Your task to perform on an android device: Go to Reddit.com Image 0: 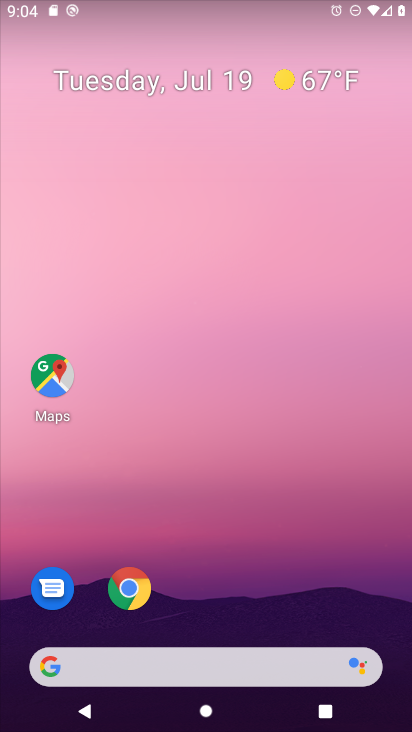
Step 0: drag from (329, 572) to (351, 77)
Your task to perform on an android device: Go to Reddit.com Image 1: 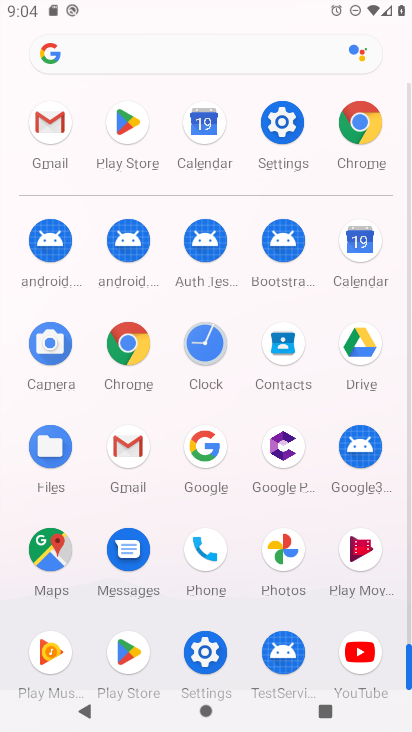
Step 1: click (368, 129)
Your task to perform on an android device: Go to Reddit.com Image 2: 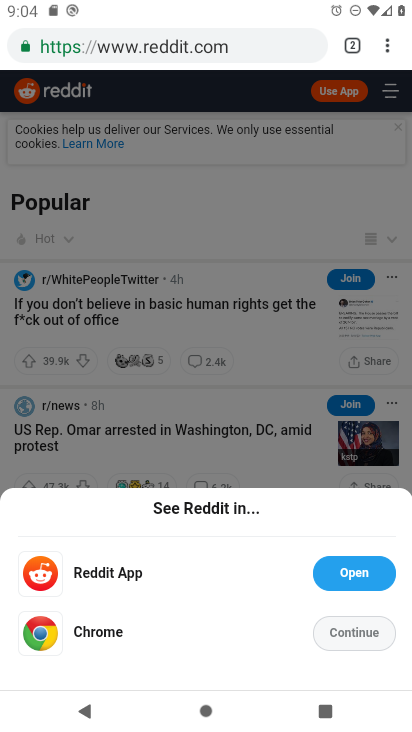
Step 2: click (264, 43)
Your task to perform on an android device: Go to Reddit.com Image 3: 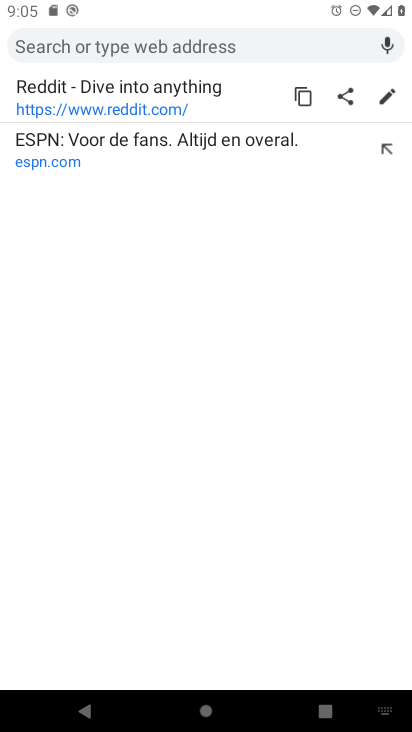
Step 3: type "reddit.com"
Your task to perform on an android device: Go to Reddit.com Image 4: 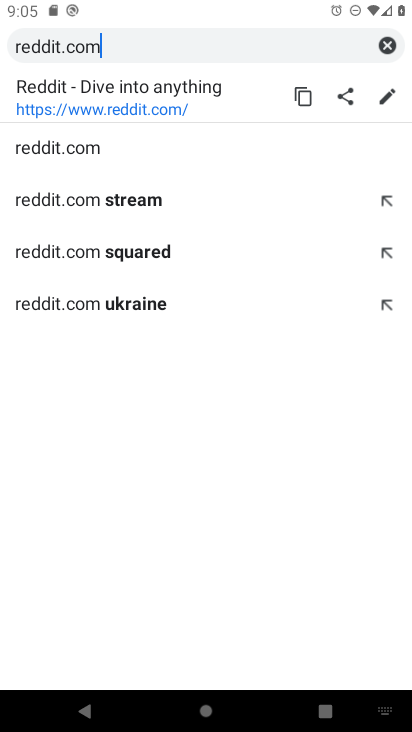
Step 4: click (269, 153)
Your task to perform on an android device: Go to Reddit.com Image 5: 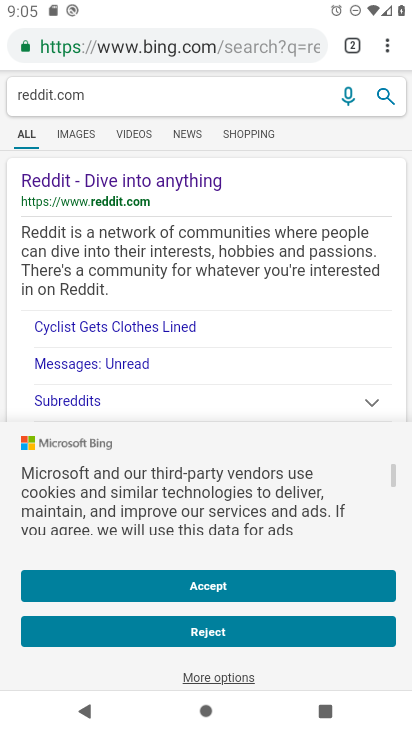
Step 5: task complete